Your task to perform on an android device: toggle pop-ups in chrome Image 0: 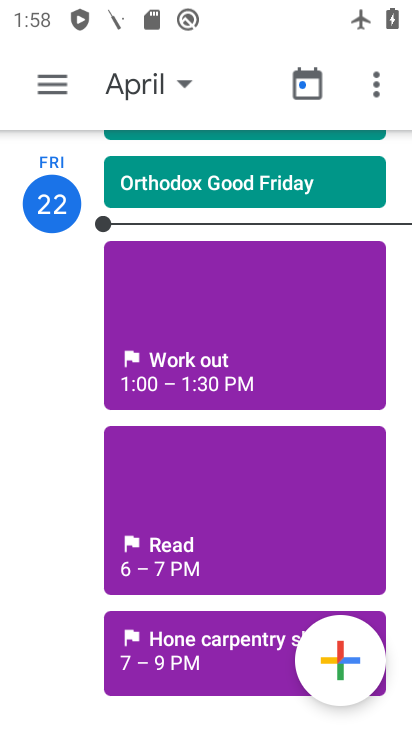
Step 0: press home button
Your task to perform on an android device: toggle pop-ups in chrome Image 1: 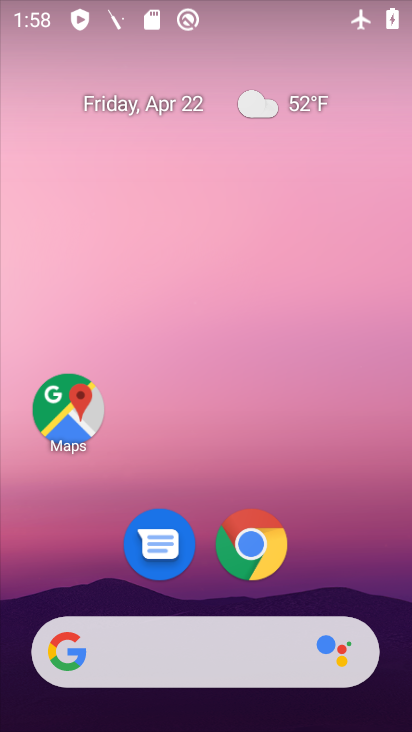
Step 1: click (252, 561)
Your task to perform on an android device: toggle pop-ups in chrome Image 2: 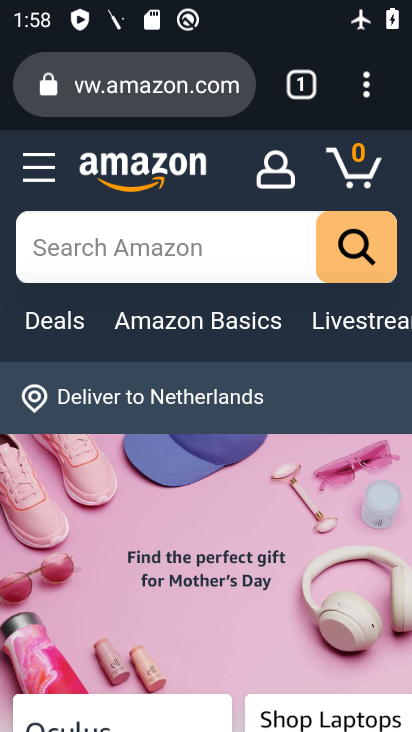
Step 2: click (375, 86)
Your task to perform on an android device: toggle pop-ups in chrome Image 3: 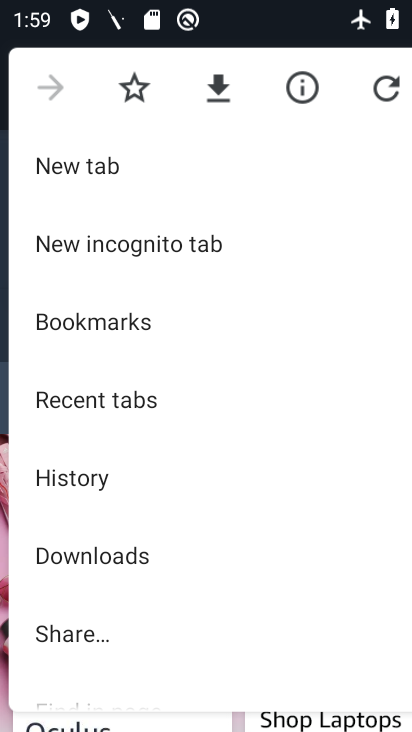
Step 3: drag from (114, 627) to (137, 288)
Your task to perform on an android device: toggle pop-ups in chrome Image 4: 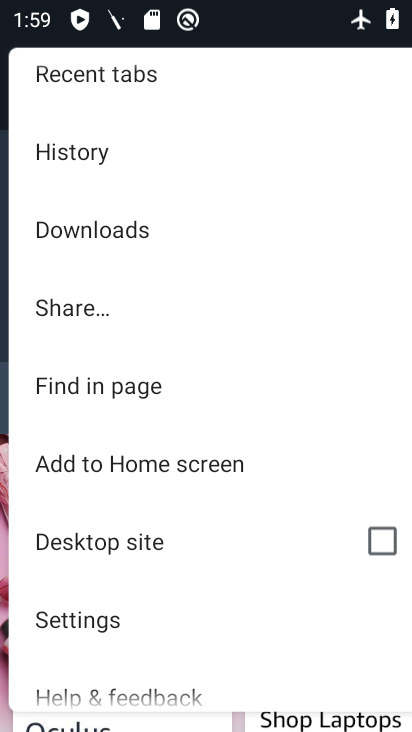
Step 4: click (84, 643)
Your task to perform on an android device: toggle pop-ups in chrome Image 5: 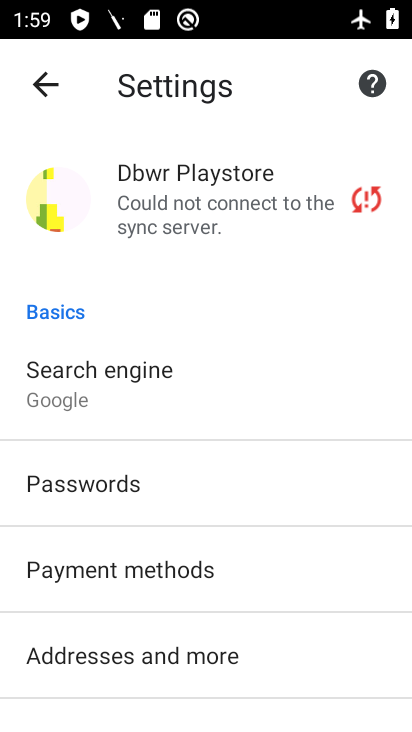
Step 5: drag from (84, 643) to (114, 296)
Your task to perform on an android device: toggle pop-ups in chrome Image 6: 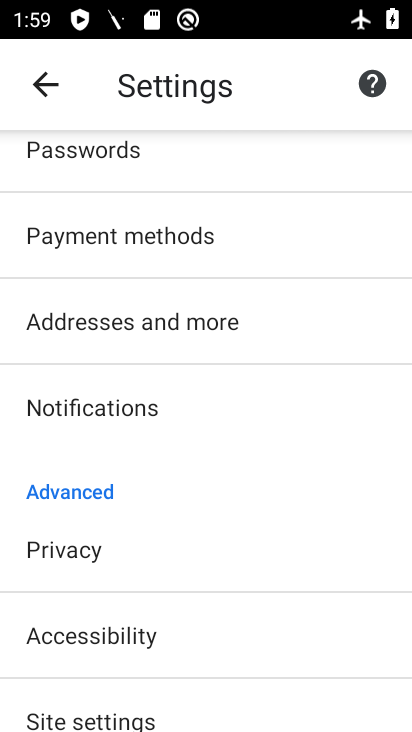
Step 6: drag from (245, 641) to (184, 233)
Your task to perform on an android device: toggle pop-ups in chrome Image 7: 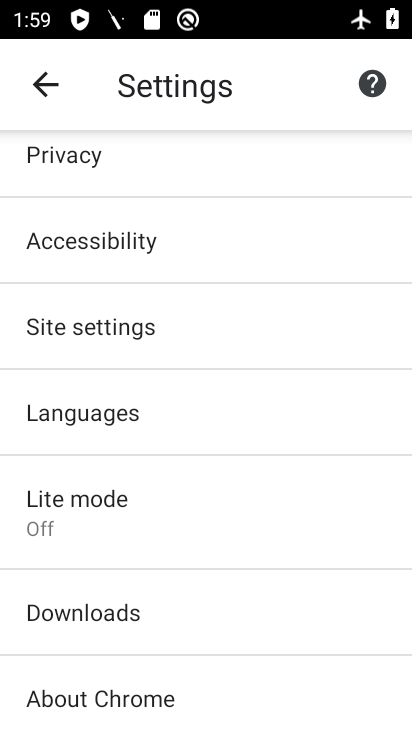
Step 7: click (127, 323)
Your task to perform on an android device: toggle pop-ups in chrome Image 8: 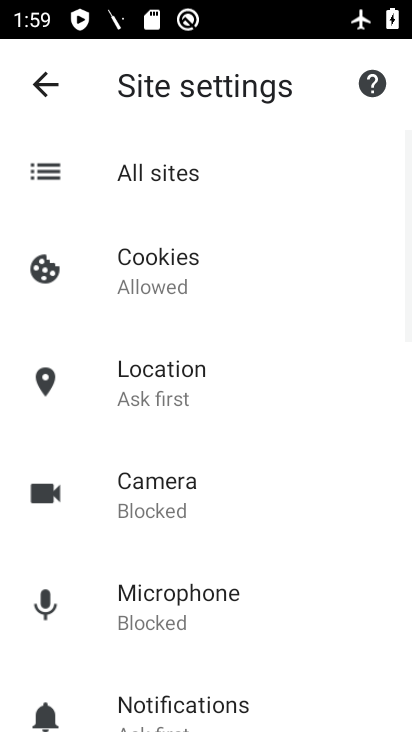
Step 8: drag from (197, 661) to (185, 134)
Your task to perform on an android device: toggle pop-ups in chrome Image 9: 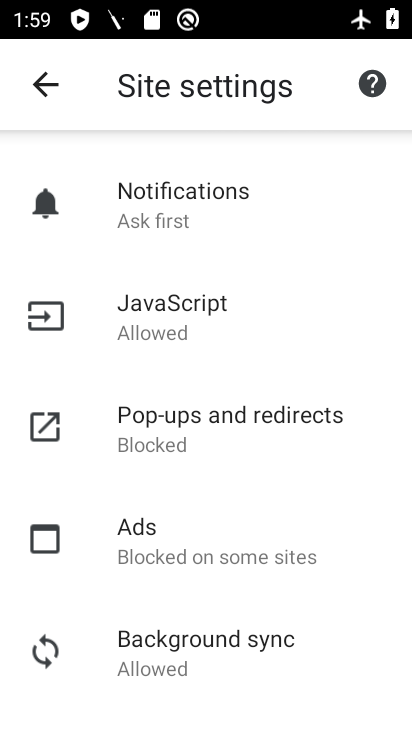
Step 9: click (147, 415)
Your task to perform on an android device: toggle pop-ups in chrome Image 10: 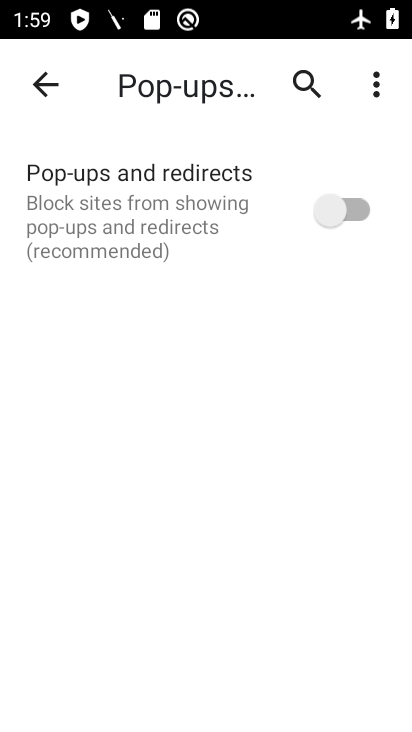
Step 10: click (372, 204)
Your task to perform on an android device: toggle pop-ups in chrome Image 11: 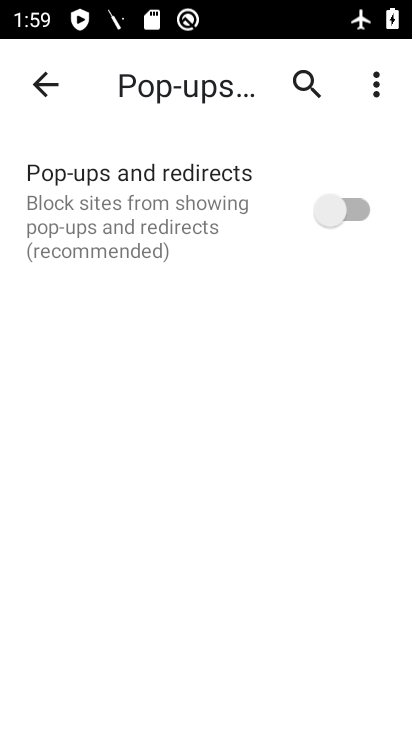
Step 11: click (372, 204)
Your task to perform on an android device: toggle pop-ups in chrome Image 12: 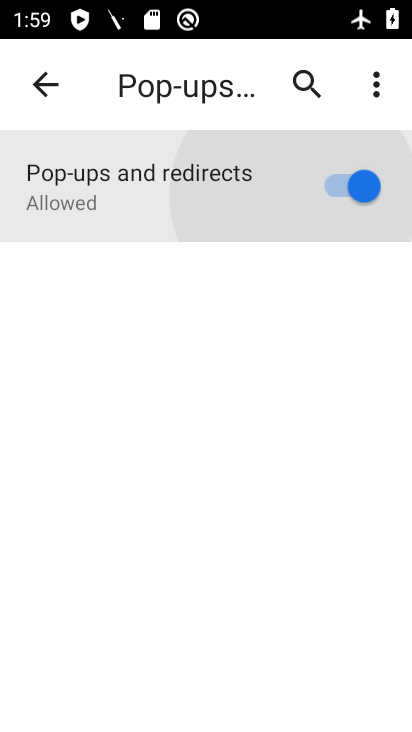
Step 12: click (372, 204)
Your task to perform on an android device: toggle pop-ups in chrome Image 13: 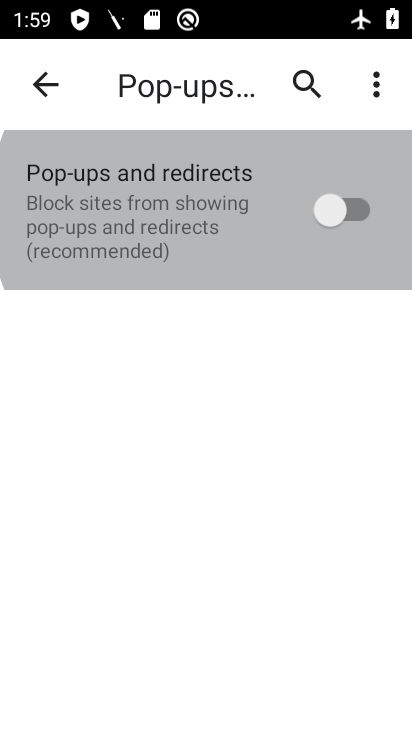
Step 13: click (372, 204)
Your task to perform on an android device: toggle pop-ups in chrome Image 14: 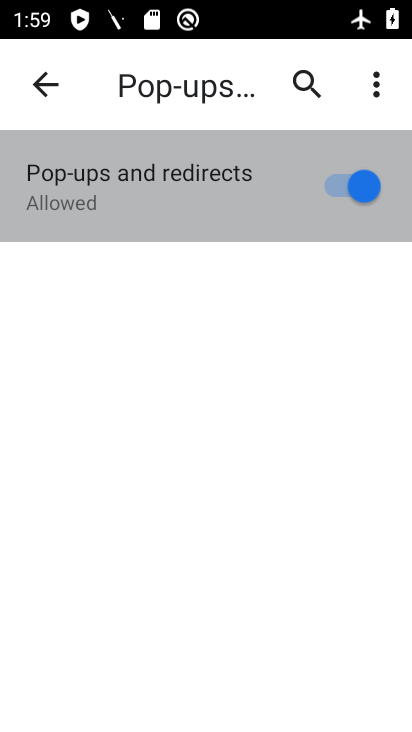
Step 14: click (372, 204)
Your task to perform on an android device: toggle pop-ups in chrome Image 15: 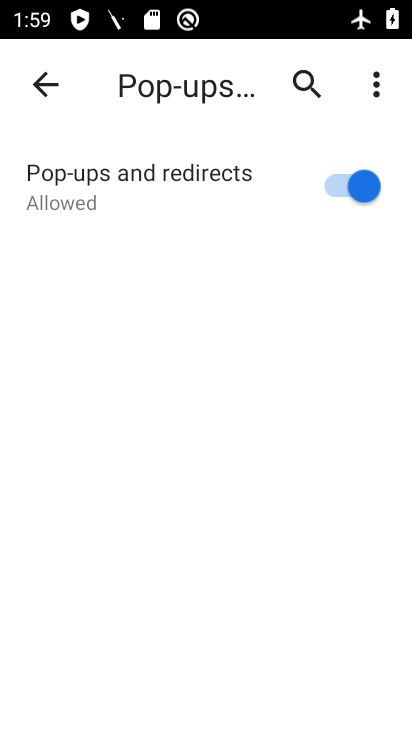
Step 15: task complete